Your task to perform on an android device: check battery use Image 0: 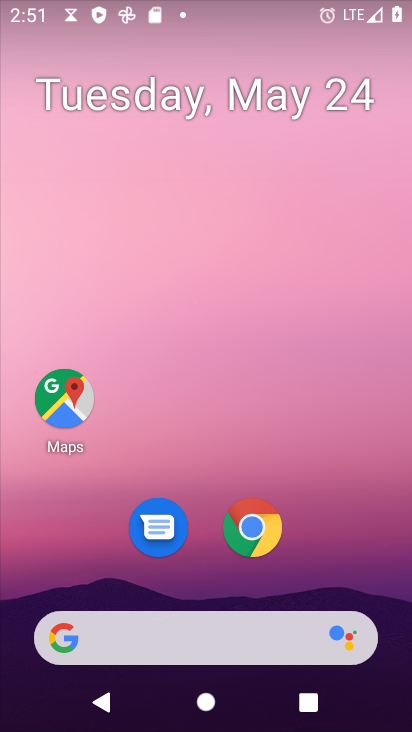
Step 0: drag from (204, 630) to (272, 118)
Your task to perform on an android device: check battery use Image 1: 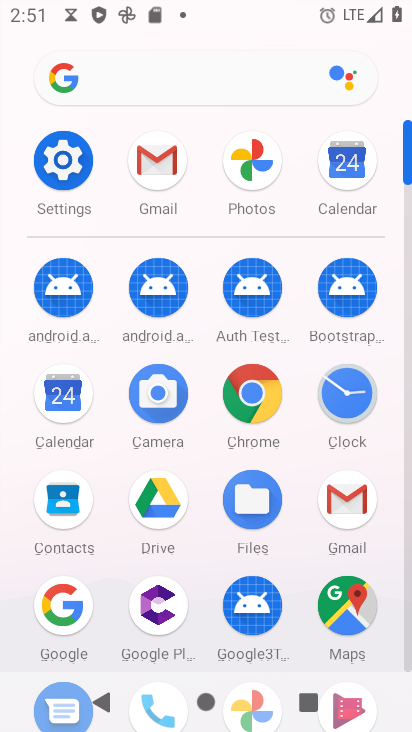
Step 1: click (73, 162)
Your task to perform on an android device: check battery use Image 2: 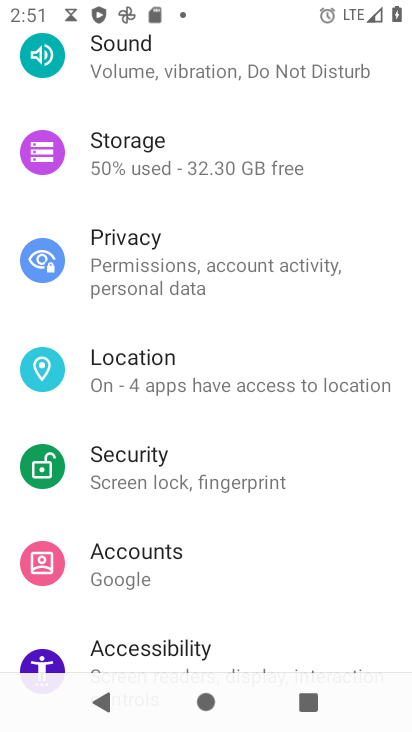
Step 2: drag from (302, 130) to (264, 580)
Your task to perform on an android device: check battery use Image 3: 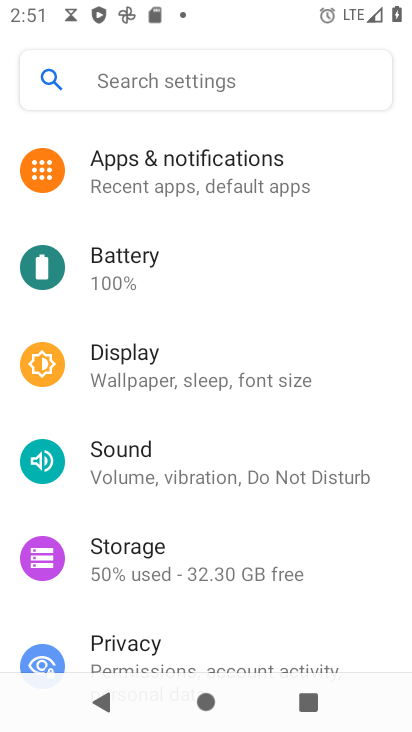
Step 3: click (149, 274)
Your task to perform on an android device: check battery use Image 4: 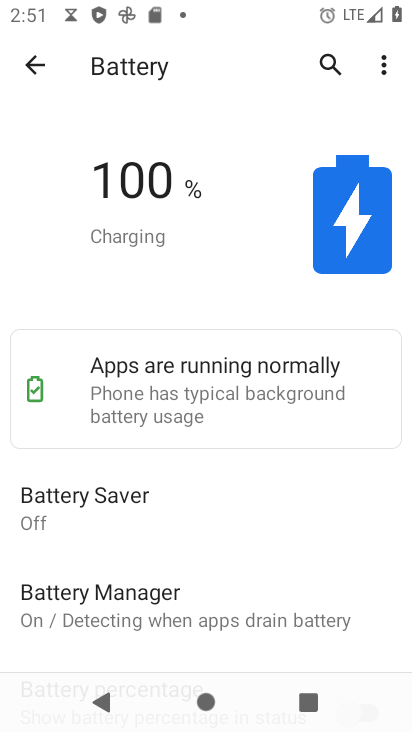
Step 4: click (381, 67)
Your task to perform on an android device: check battery use Image 5: 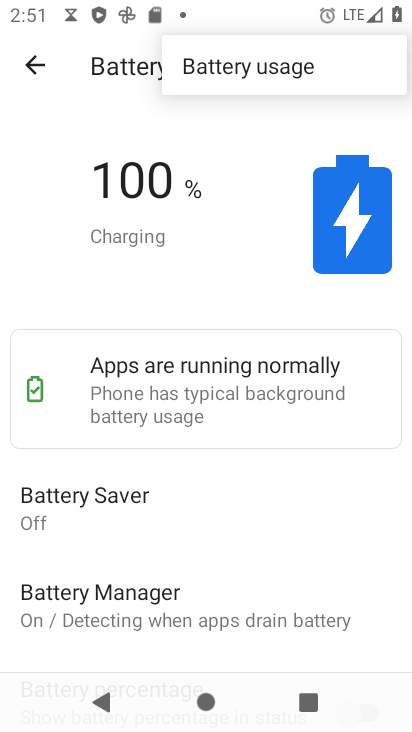
Step 5: click (288, 73)
Your task to perform on an android device: check battery use Image 6: 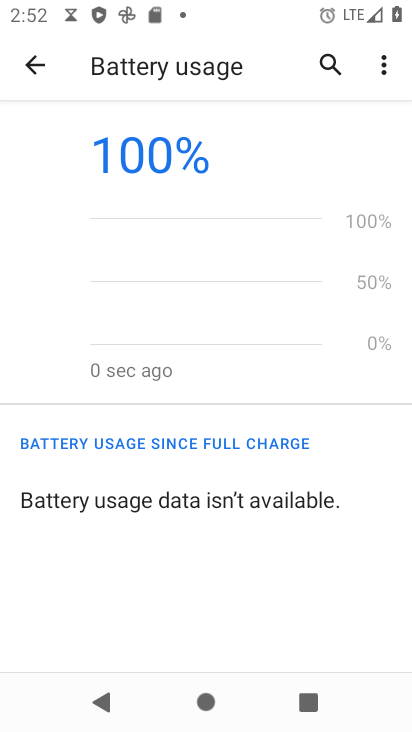
Step 6: task complete